Your task to perform on an android device: turn on sleep mode Image 0: 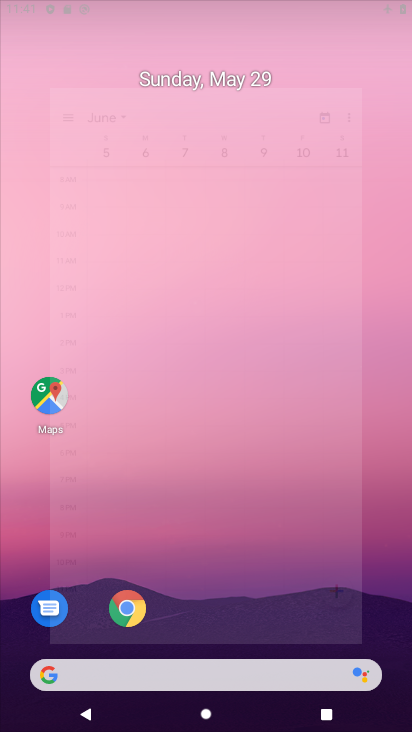
Step 0: drag from (193, 648) to (170, 10)
Your task to perform on an android device: turn on sleep mode Image 1: 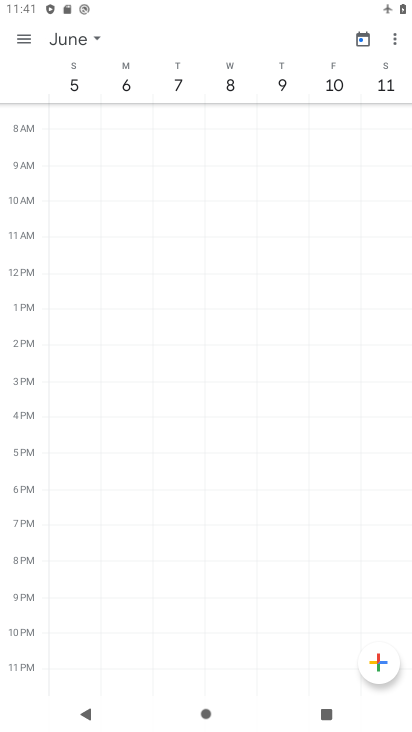
Step 1: press home button
Your task to perform on an android device: turn on sleep mode Image 2: 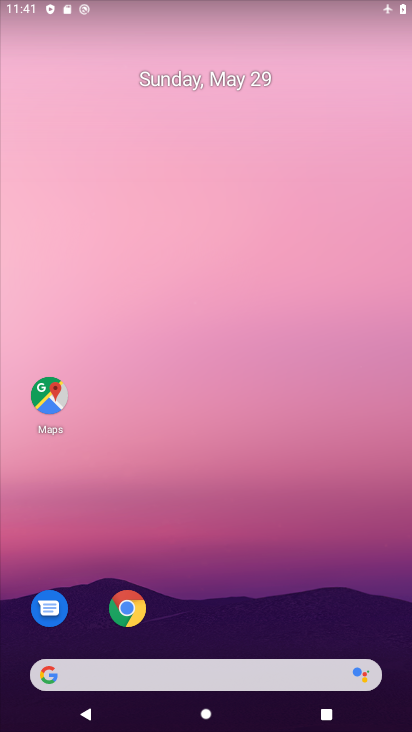
Step 2: drag from (178, 630) to (181, 90)
Your task to perform on an android device: turn on sleep mode Image 3: 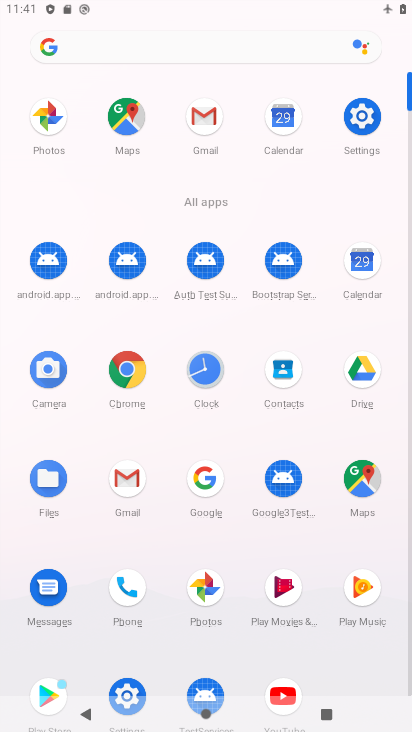
Step 3: click (123, 669)
Your task to perform on an android device: turn on sleep mode Image 4: 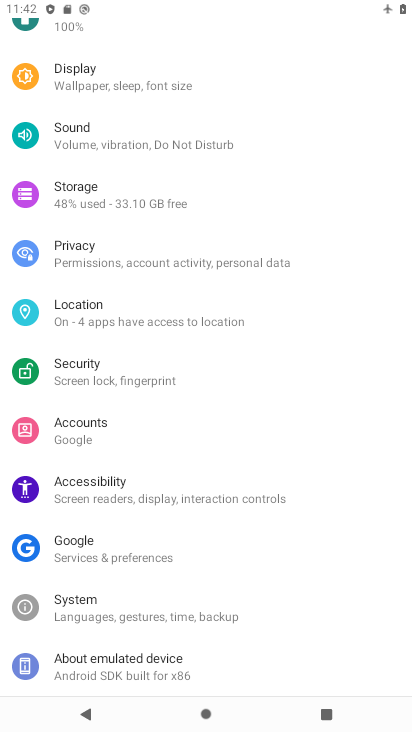
Step 4: click (91, 90)
Your task to perform on an android device: turn on sleep mode Image 5: 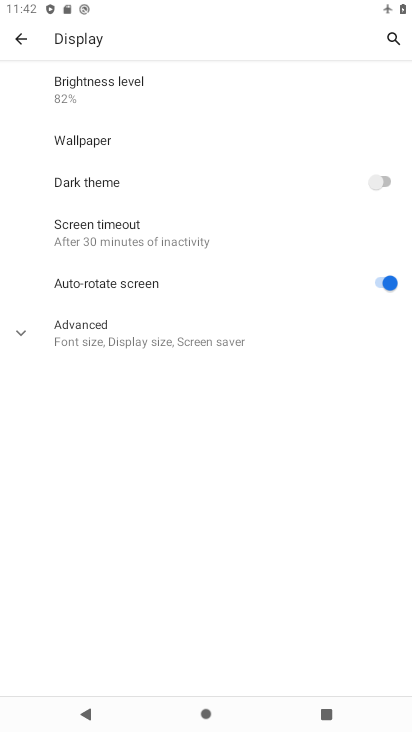
Step 5: click (123, 325)
Your task to perform on an android device: turn on sleep mode Image 6: 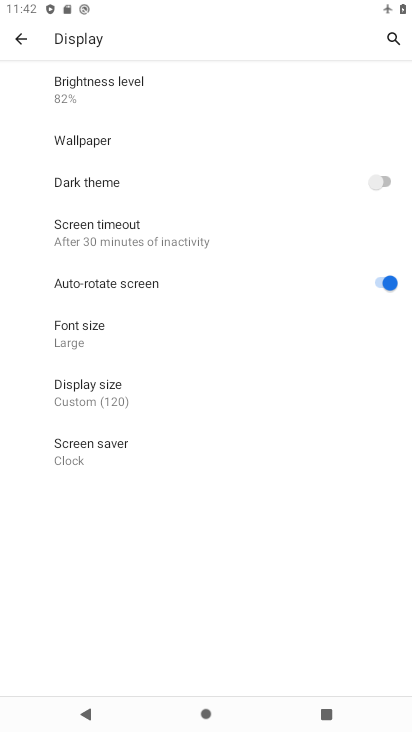
Step 6: task complete